Your task to perform on an android device: turn on improve location accuracy Image 0: 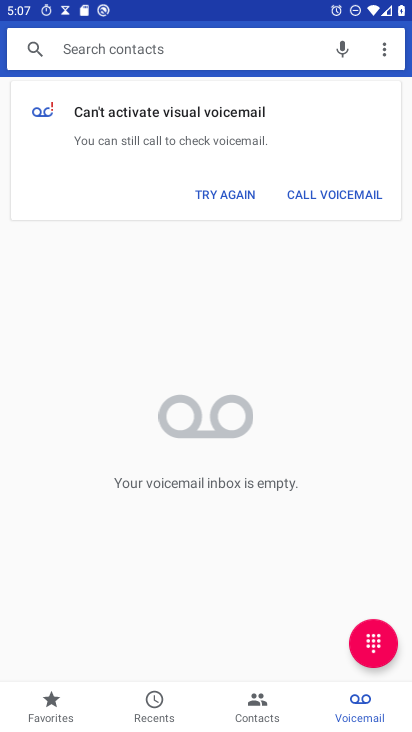
Step 0: press home button
Your task to perform on an android device: turn on improve location accuracy Image 1: 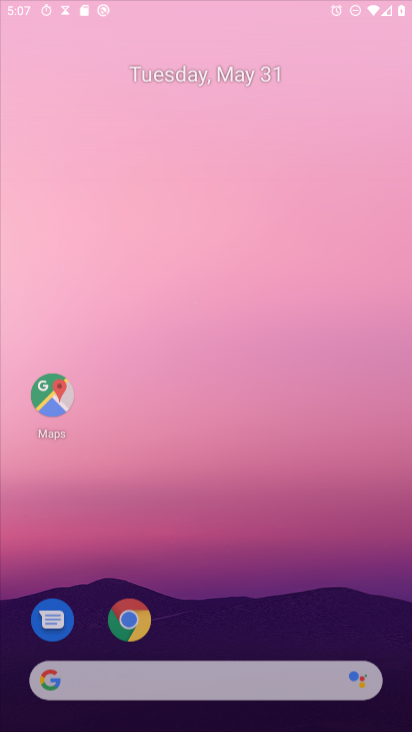
Step 1: click (264, 729)
Your task to perform on an android device: turn on improve location accuracy Image 2: 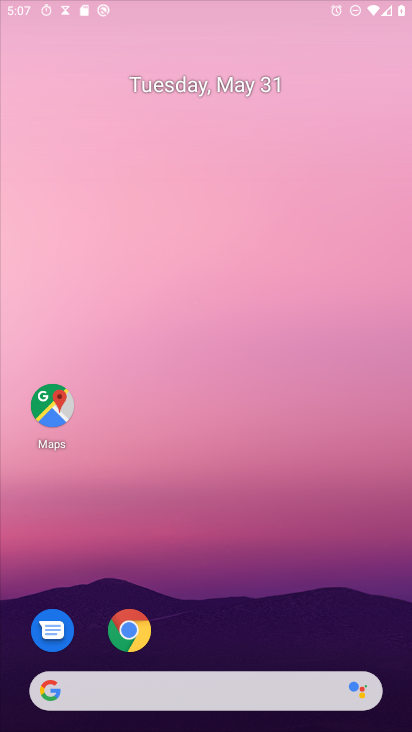
Step 2: drag from (270, 659) to (356, 40)
Your task to perform on an android device: turn on improve location accuracy Image 3: 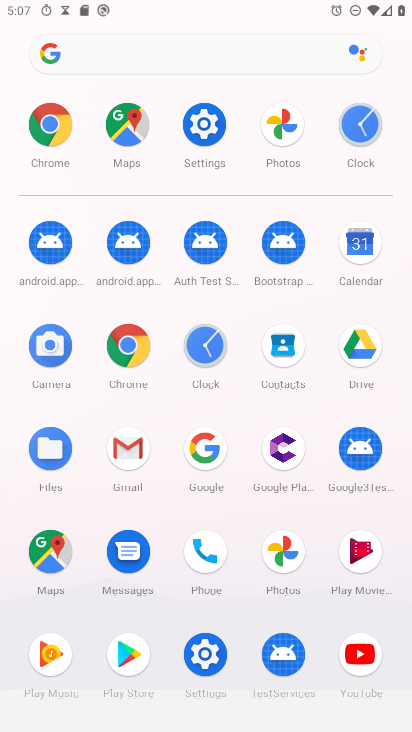
Step 3: click (203, 124)
Your task to perform on an android device: turn on improve location accuracy Image 4: 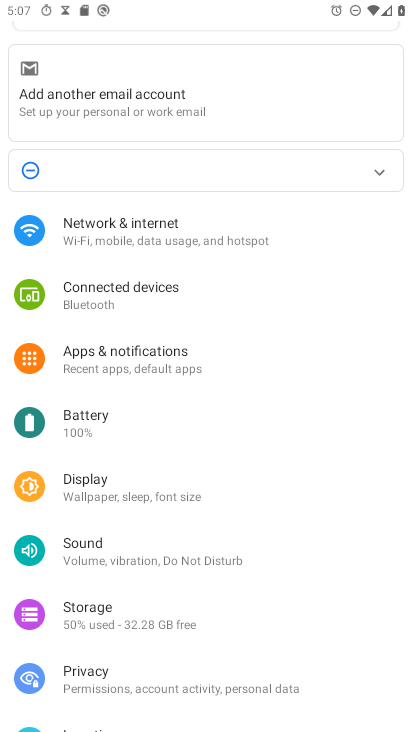
Step 4: drag from (135, 588) to (157, 173)
Your task to perform on an android device: turn on improve location accuracy Image 5: 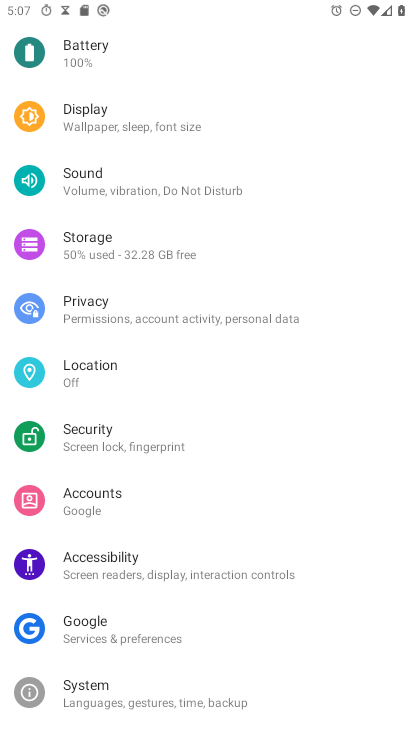
Step 5: click (111, 394)
Your task to perform on an android device: turn on improve location accuracy Image 6: 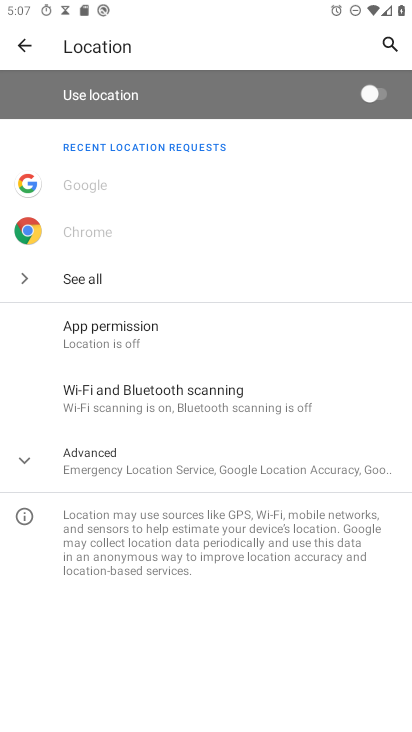
Step 6: click (211, 468)
Your task to perform on an android device: turn on improve location accuracy Image 7: 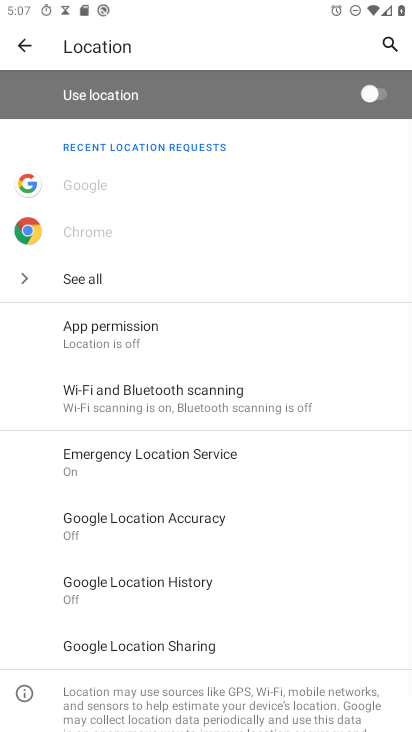
Step 7: click (223, 512)
Your task to perform on an android device: turn on improve location accuracy Image 8: 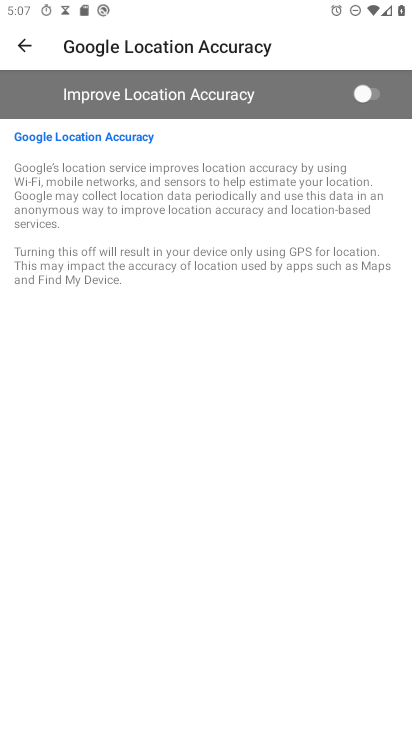
Step 8: click (381, 91)
Your task to perform on an android device: turn on improve location accuracy Image 9: 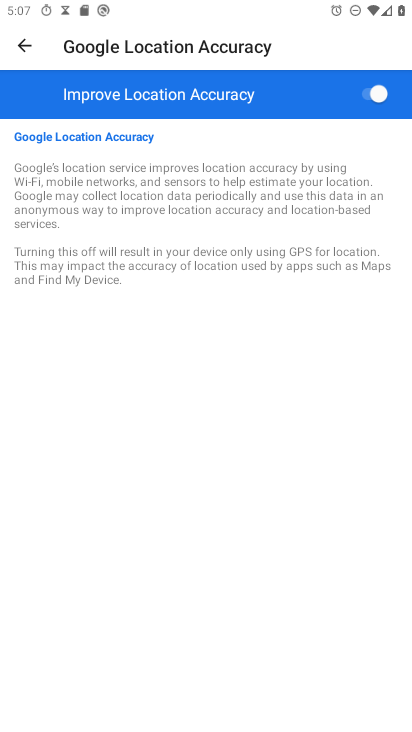
Step 9: task complete